Your task to perform on an android device: change timer sound Image 0: 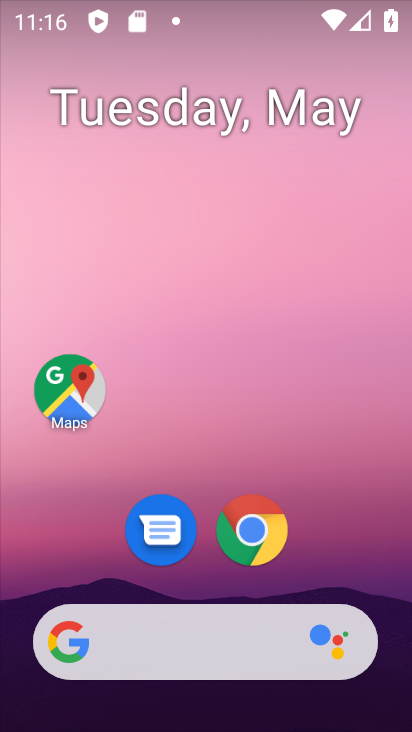
Step 0: drag from (254, 528) to (236, 50)
Your task to perform on an android device: change timer sound Image 1: 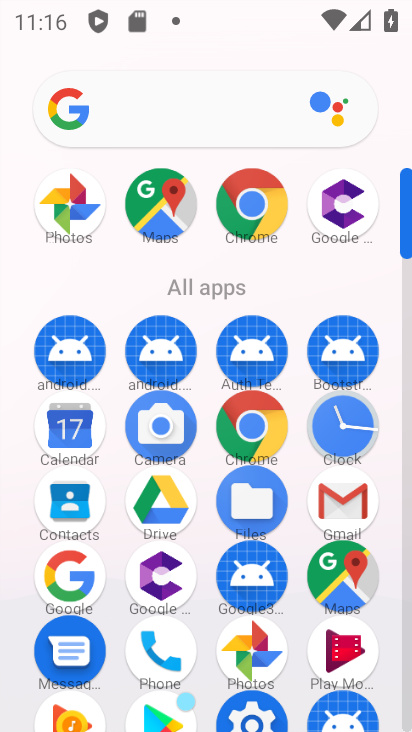
Step 1: drag from (295, 618) to (299, 310)
Your task to perform on an android device: change timer sound Image 2: 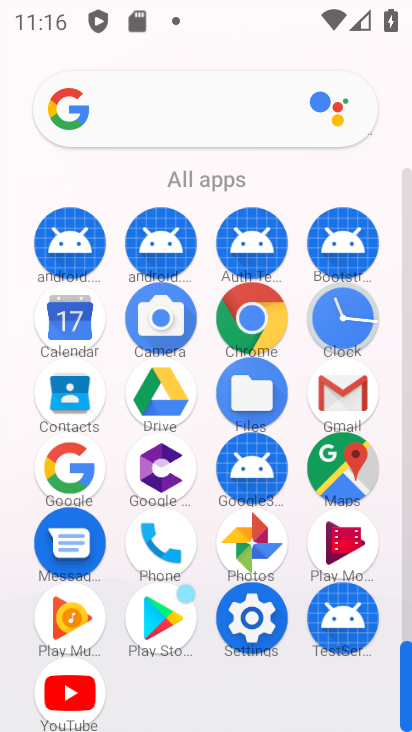
Step 2: click (267, 604)
Your task to perform on an android device: change timer sound Image 3: 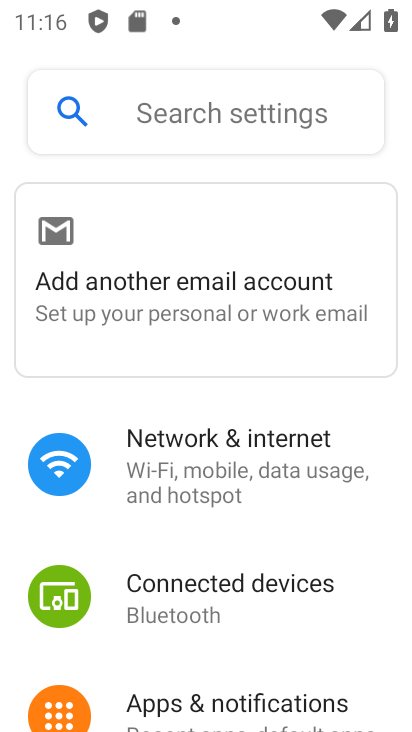
Step 3: drag from (179, 548) to (152, 629)
Your task to perform on an android device: change timer sound Image 4: 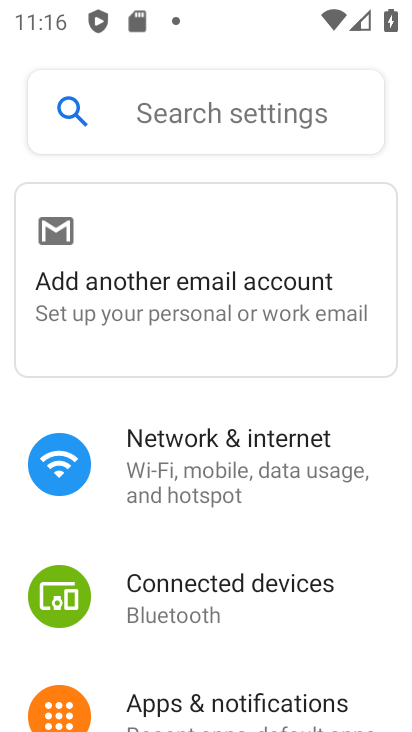
Step 4: press home button
Your task to perform on an android device: change timer sound Image 5: 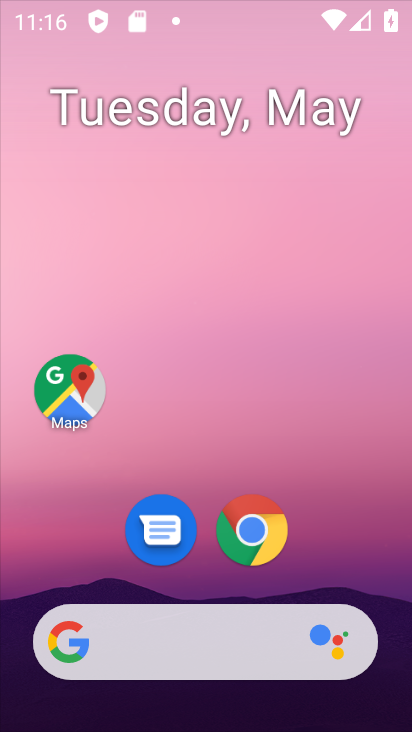
Step 5: drag from (303, 561) to (291, 91)
Your task to perform on an android device: change timer sound Image 6: 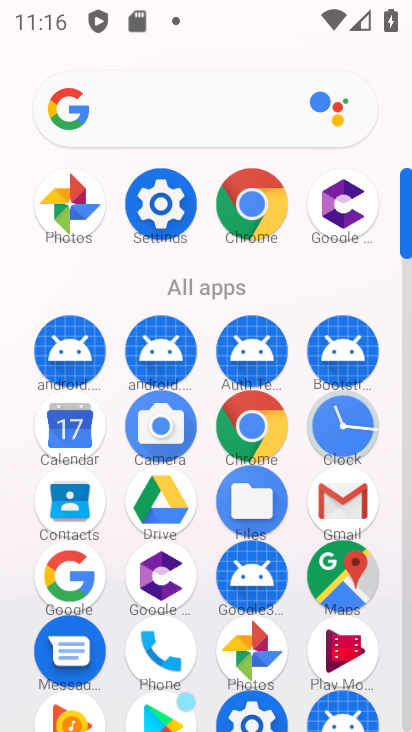
Step 6: click (339, 431)
Your task to perform on an android device: change timer sound Image 7: 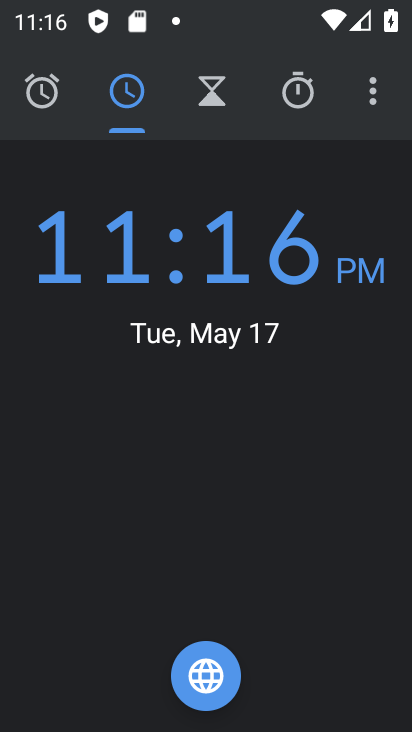
Step 7: click (371, 89)
Your task to perform on an android device: change timer sound Image 8: 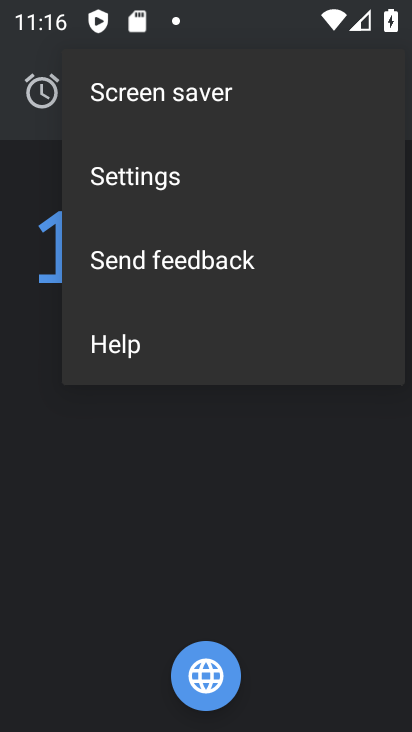
Step 8: click (142, 163)
Your task to perform on an android device: change timer sound Image 9: 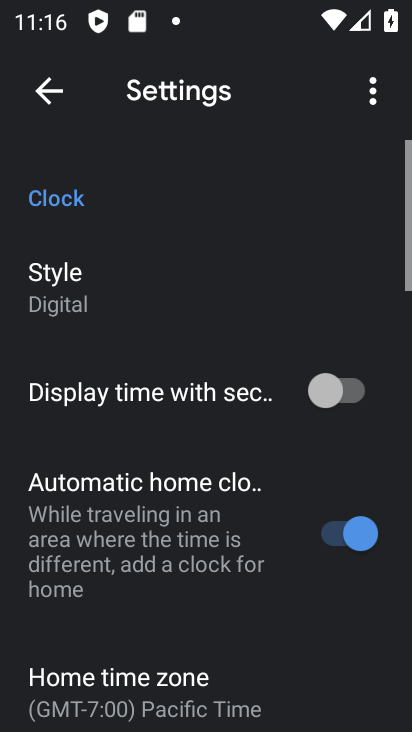
Step 9: task complete